Your task to perform on an android device: set default search engine in the chrome app Image 0: 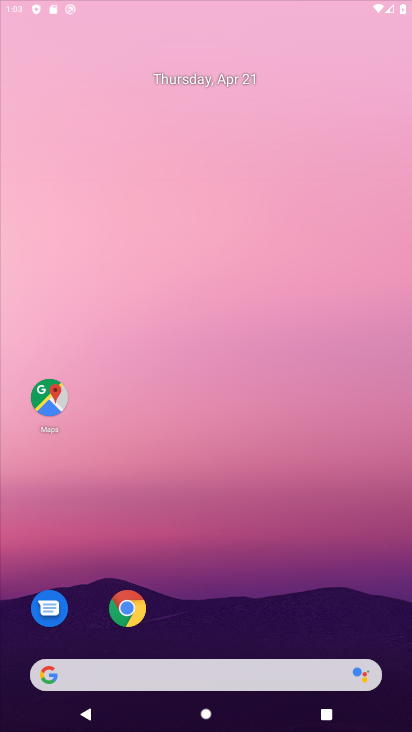
Step 0: click (260, 223)
Your task to perform on an android device: set default search engine in the chrome app Image 1: 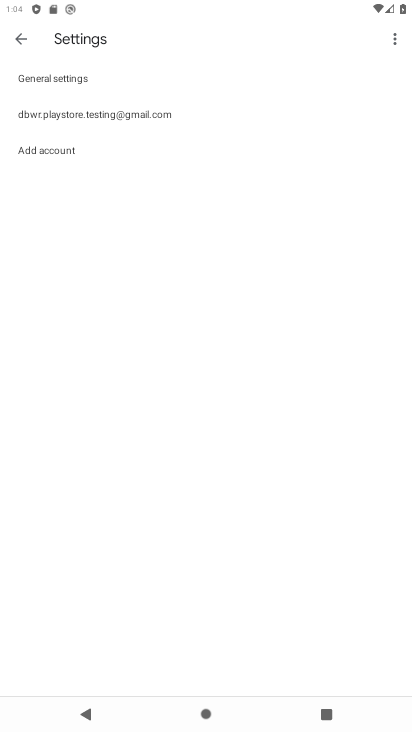
Step 1: press home button
Your task to perform on an android device: set default search engine in the chrome app Image 2: 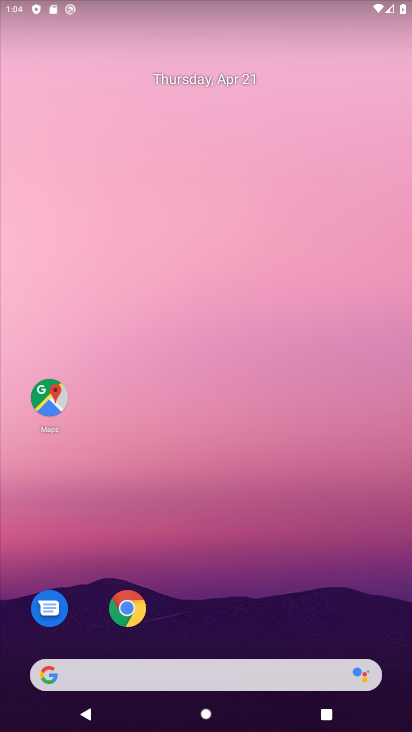
Step 2: drag from (252, 591) to (252, 183)
Your task to perform on an android device: set default search engine in the chrome app Image 3: 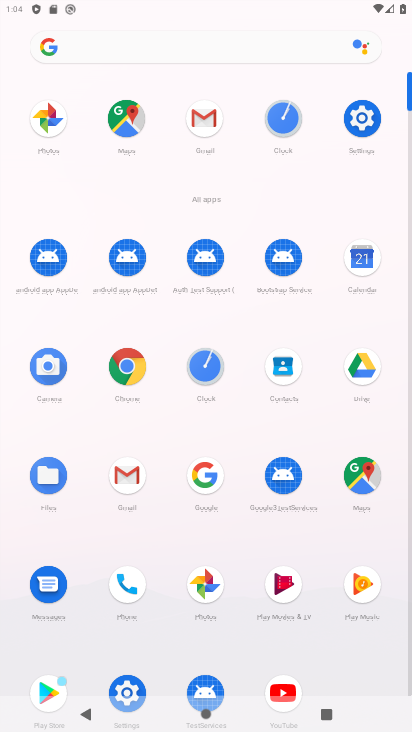
Step 3: click (125, 355)
Your task to perform on an android device: set default search engine in the chrome app Image 4: 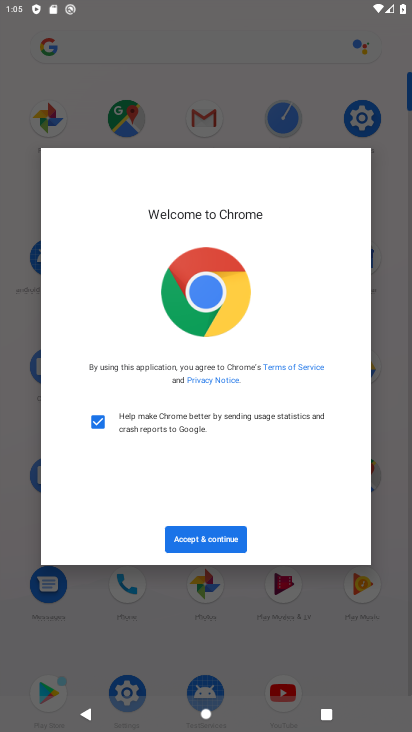
Step 4: click (199, 523)
Your task to perform on an android device: set default search engine in the chrome app Image 5: 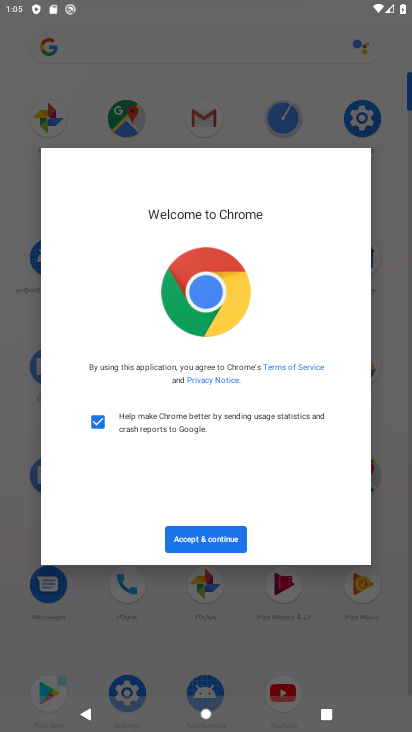
Step 5: click (196, 529)
Your task to perform on an android device: set default search engine in the chrome app Image 6: 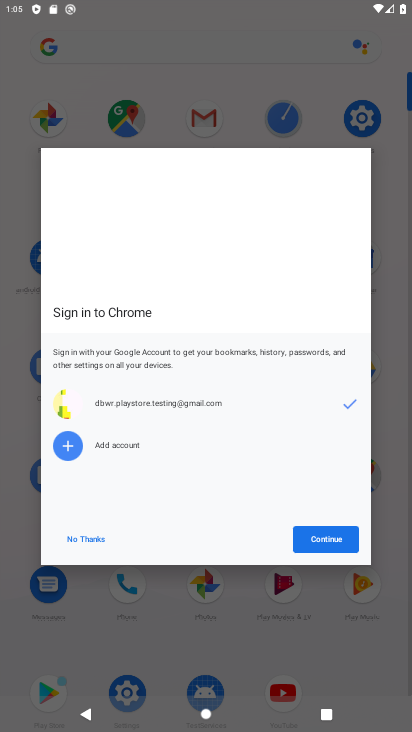
Step 6: click (333, 539)
Your task to perform on an android device: set default search engine in the chrome app Image 7: 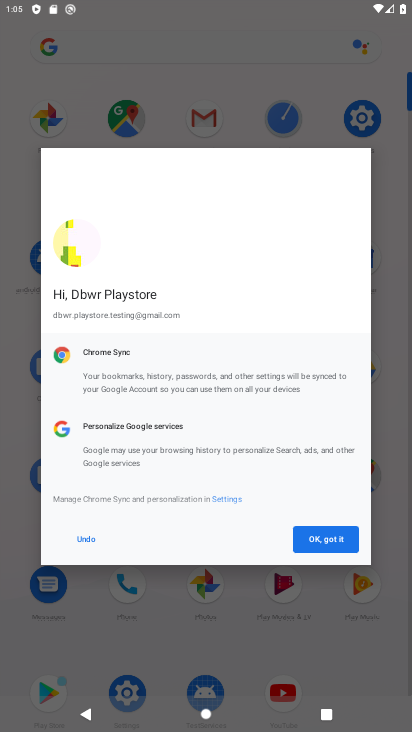
Step 7: click (314, 534)
Your task to perform on an android device: set default search engine in the chrome app Image 8: 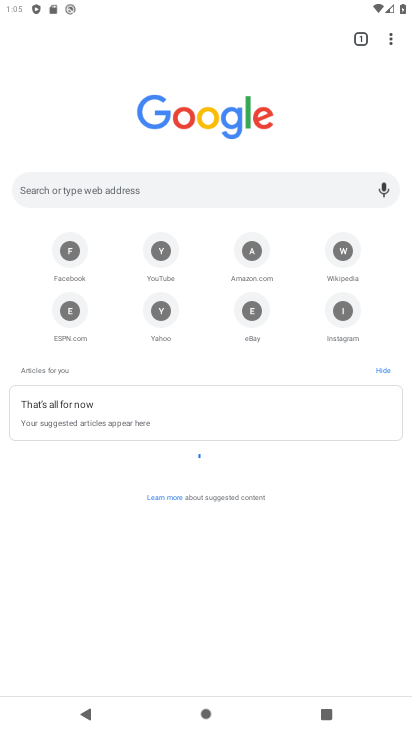
Step 8: click (383, 31)
Your task to perform on an android device: set default search engine in the chrome app Image 9: 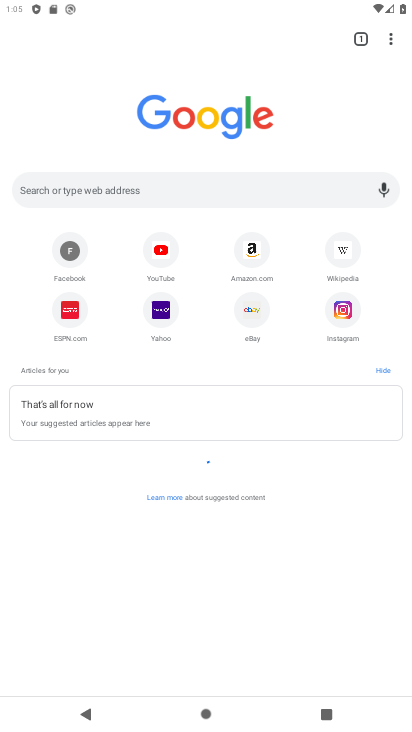
Step 9: click (389, 35)
Your task to perform on an android device: set default search engine in the chrome app Image 10: 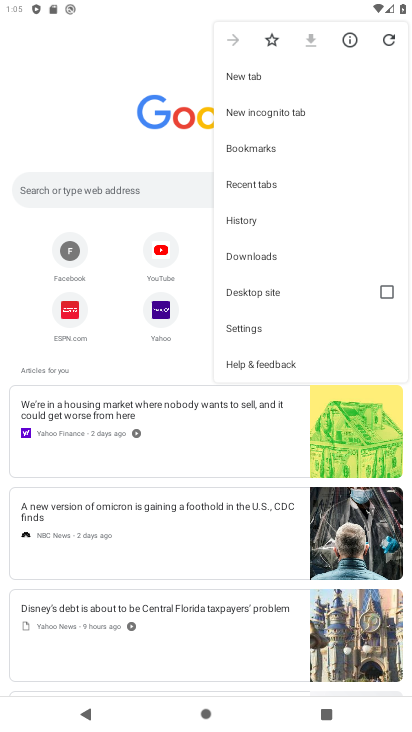
Step 10: click (278, 326)
Your task to perform on an android device: set default search engine in the chrome app Image 11: 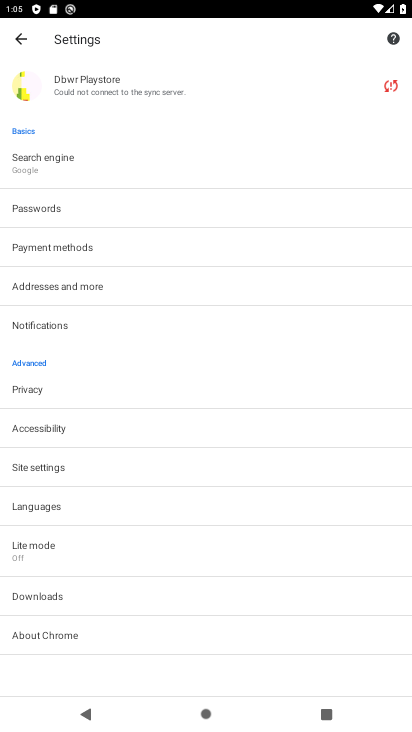
Step 11: click (103, 160)
Your task to perform on an android device: set default search engine in the chrome app Image 12: 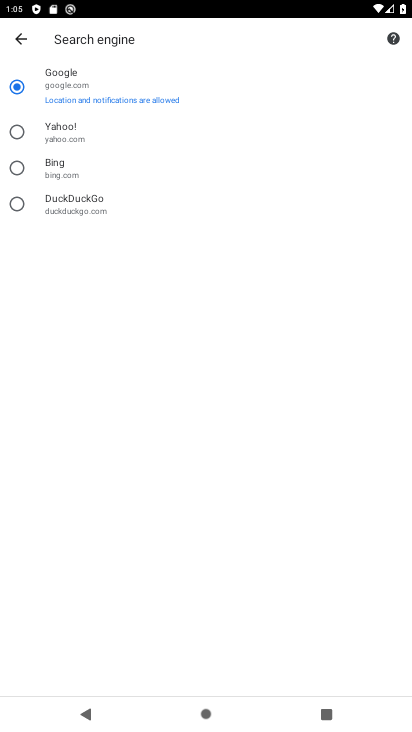
Step 12: click (65, 161)
Your task to perform on an android device: set default search engine in the chrome app Image 13: 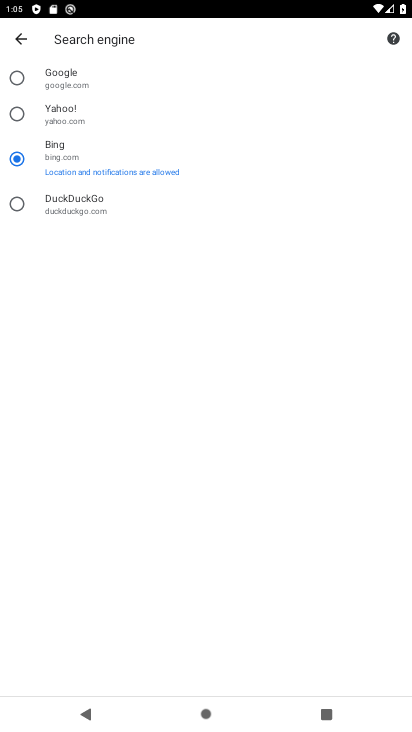
Step 13: task complete